Your task to perform on an android device: How do I get to the nearest T-Mobile Store? Image 0: 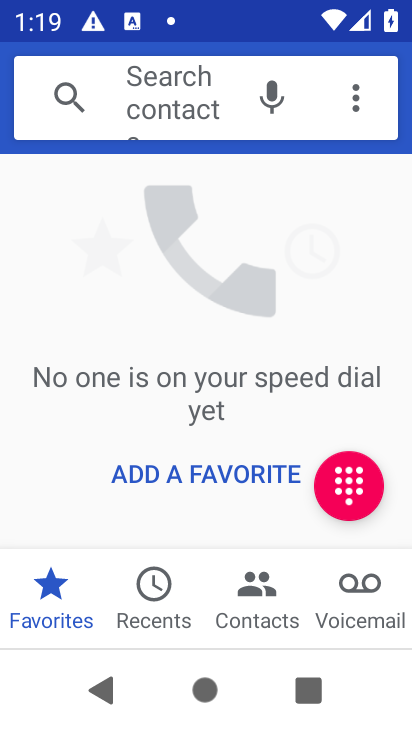
Step 0: press home button
Your task to perform on an android device: How do I get to the nearest T-Mobile Store? Image 1: 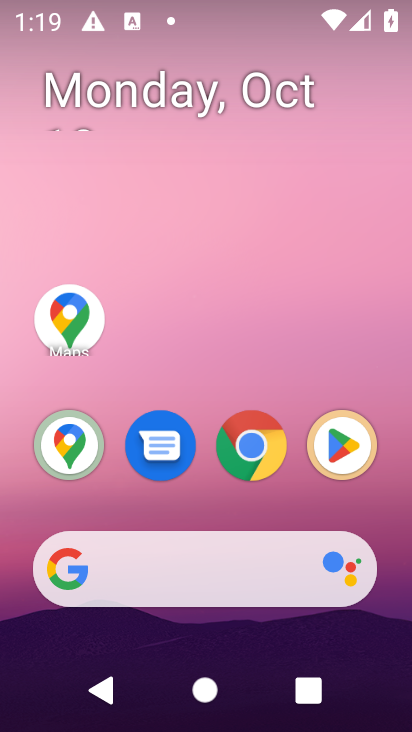
Step 1: click (260, 449)
Your task to perform on an android device: How do I get to the nearest T-Mobile Store? Image 2: 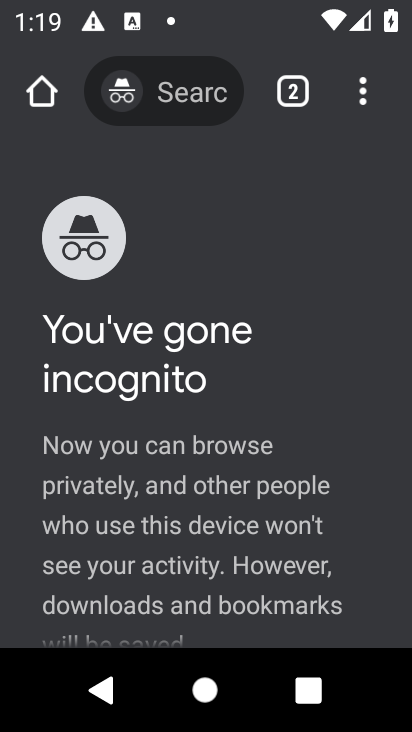
Step 2: click (154, 96)
Your task to perform on an android device: How do I get to the nearest T-Mobile Store? Image 3: 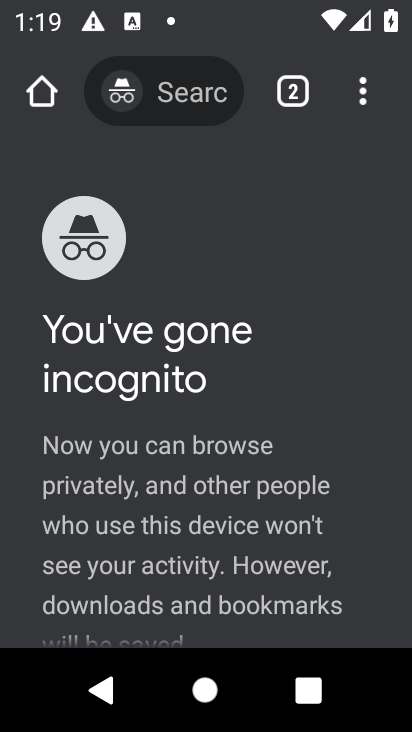
Step 3: click (197, 88)
Your task to perform on an android device: How do I get to the nearest T-Mobile Store? Image 4: 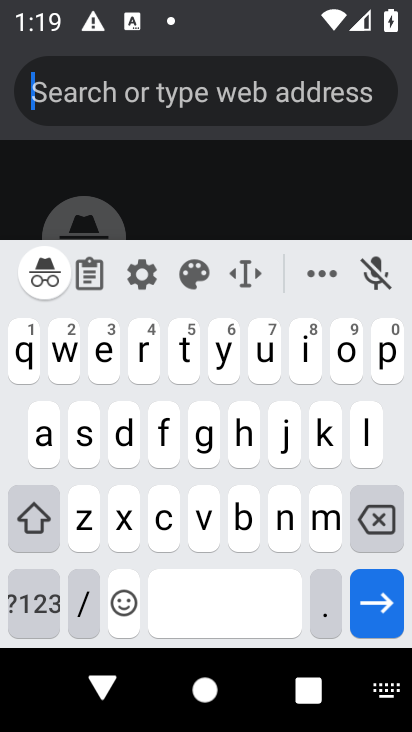
Step 4: type "nearest t mobile store?"
Your task to perform on an android device: How do I get to the nearest T-Mobile Store? Image 5: 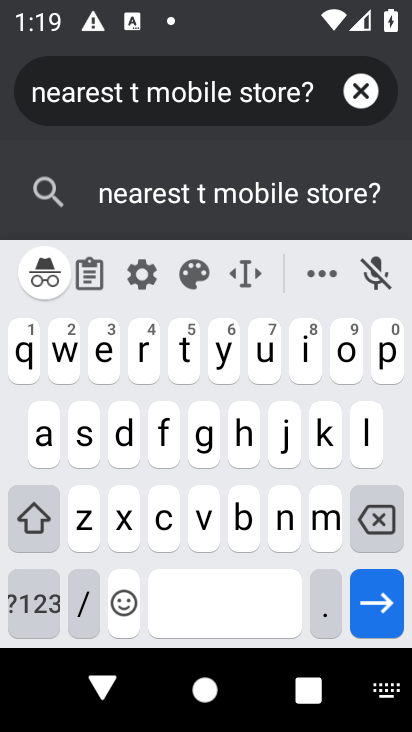
Step 5: click (280, 191)
Your task to perform on an android device: How do I get to the nearest T-Mobile Store? Image 6: 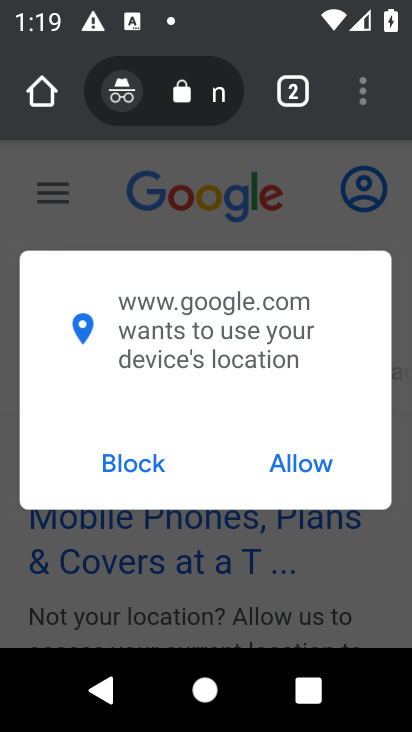
Step 6: click (147, 506)
Your task to perform on an android device: How do I get to the nearest T-Mobile Store? Image 7: 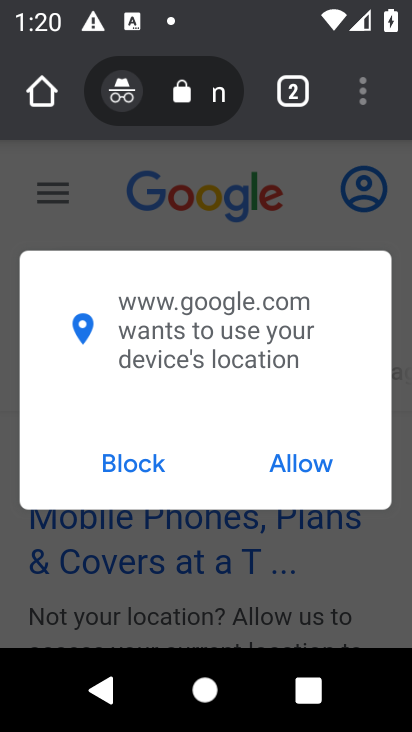
Step 7: click (144, 457)
Your task to perform on an android device: How do I get to the nearest T-Mobile Store? Image 8: 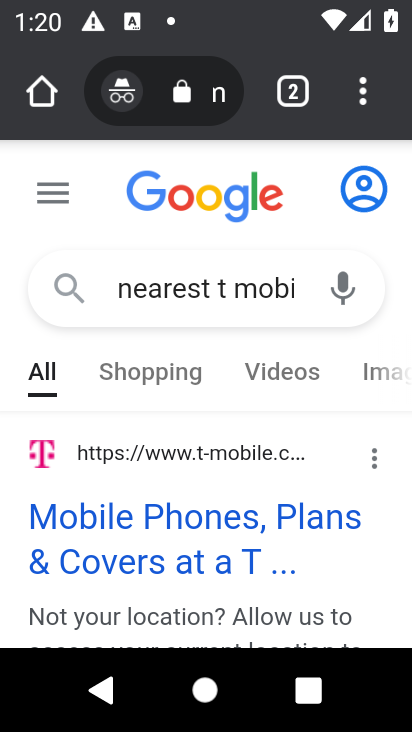
Step 8: click (218, 529)
Your task to perform on an android device: How do I get to the nearest T-Mobile Store? Image 9: 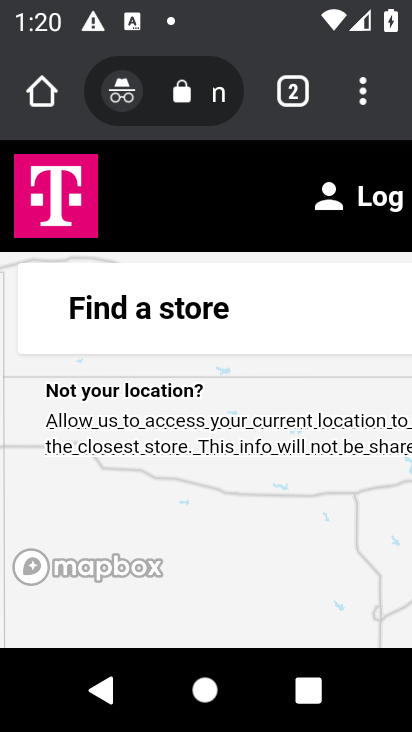
Step 9: task complete